Your task to perform on an android device: Search for hotels in Paris Image 0: 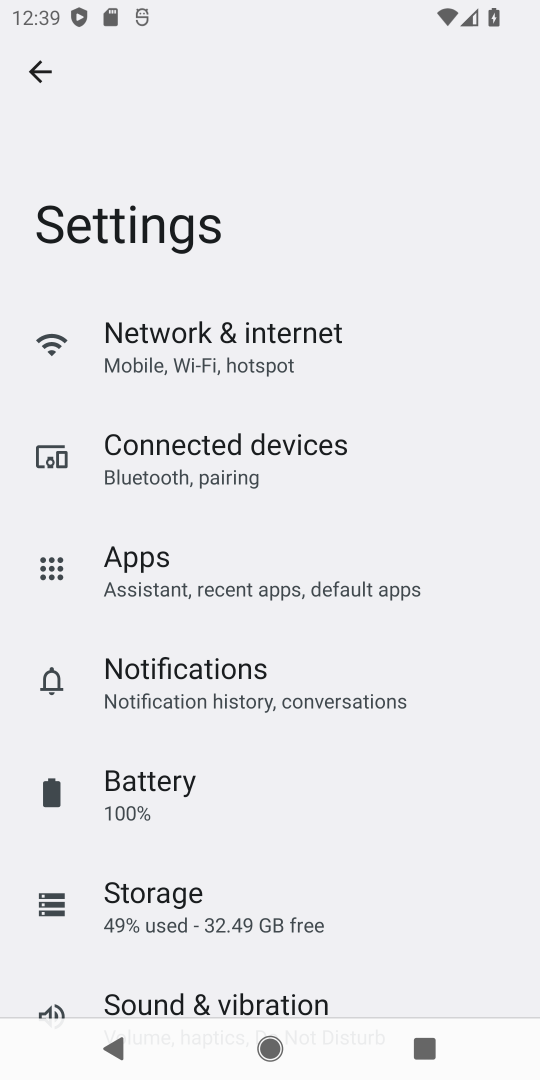
Step 0: press home button
Your task to perform on an android device: Search for hotels in Paris Image 1: 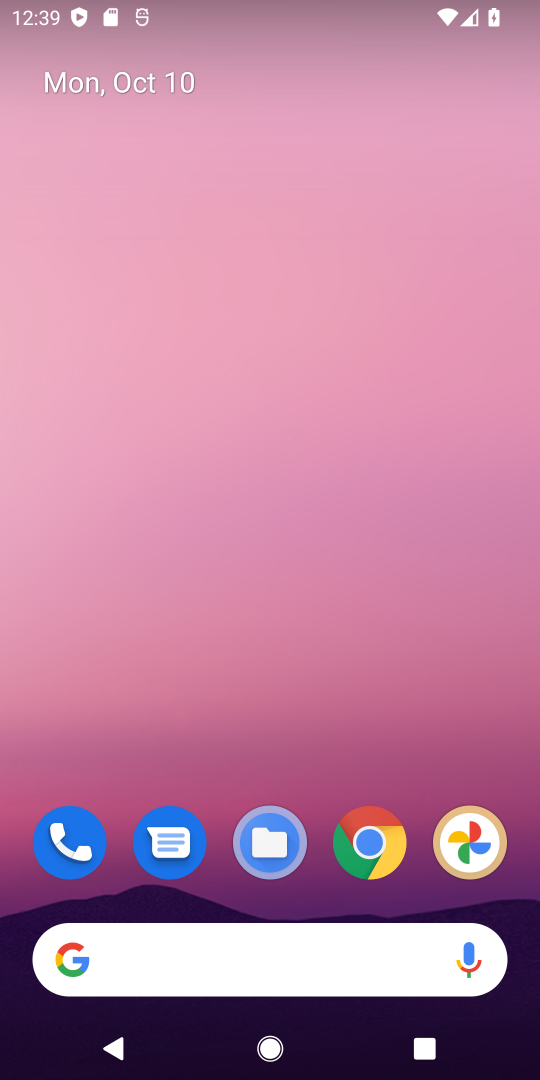
Step 1: click (355, 844)
Your task to perform on an android device: Search for hotels in Paris Image 2: 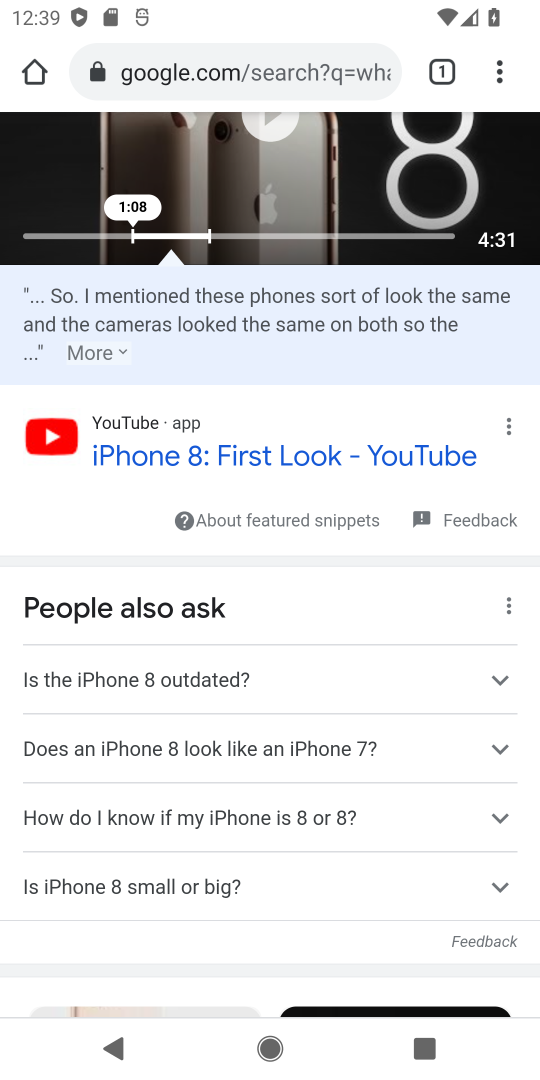
Step 2: click (273, 85)
Your task to perform on an android device: Search for hotels in Paris Image 3: 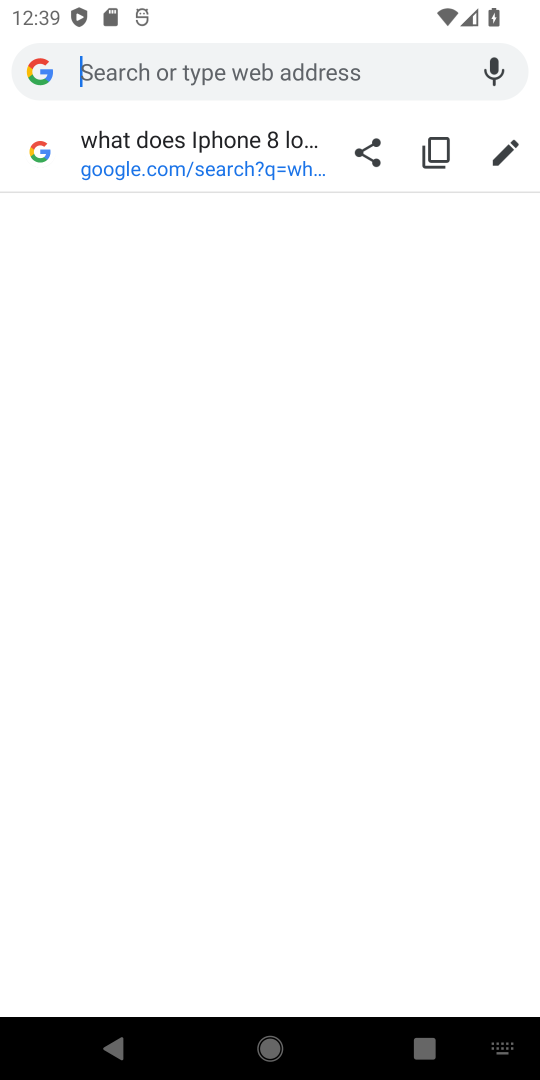
Step 3: type "hotels in Paris"
Your task to perform on an android device: Search for hotels in Paris Image 4: 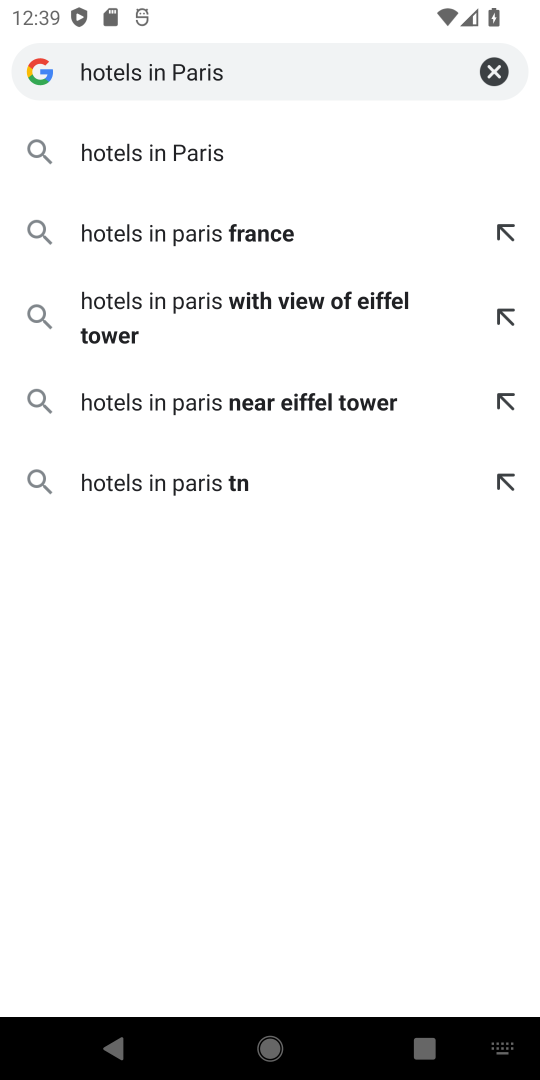
Step 4: press enter
Your task to perform on an android device: Search for hotels in Paris Image 5: 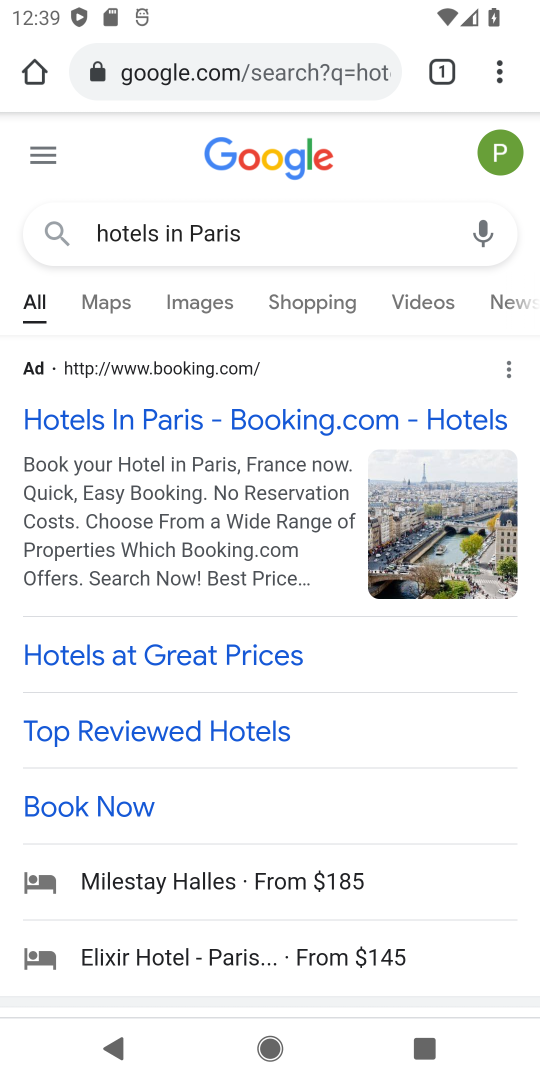
Step 5: click (252, 416)
Your task to perform on an android device: Search for hotels in Paris Image 6: 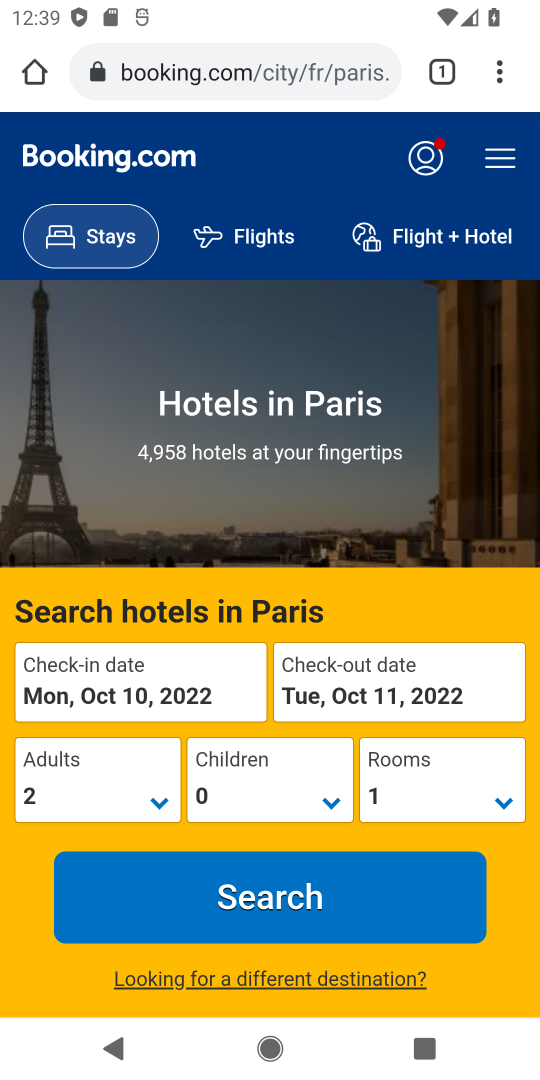
Step 6: drag from (328, 745) to (343, 158)
Your task to perform on an android device: Search for hotels in Paris Image 7: 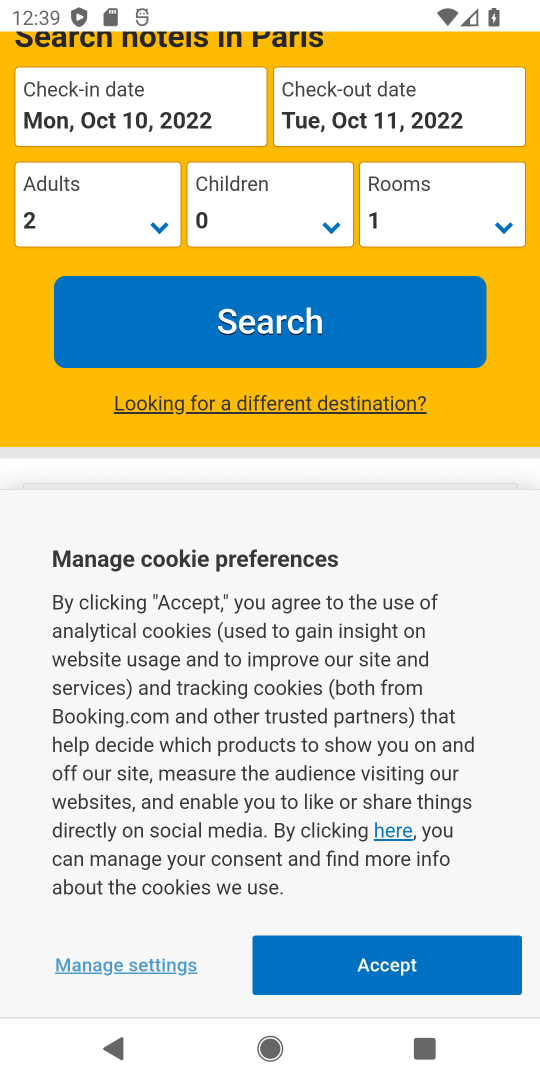
Step 7: click (423, 973)
Your task to perform on an android device: Search for hotels in Paris Image 8: 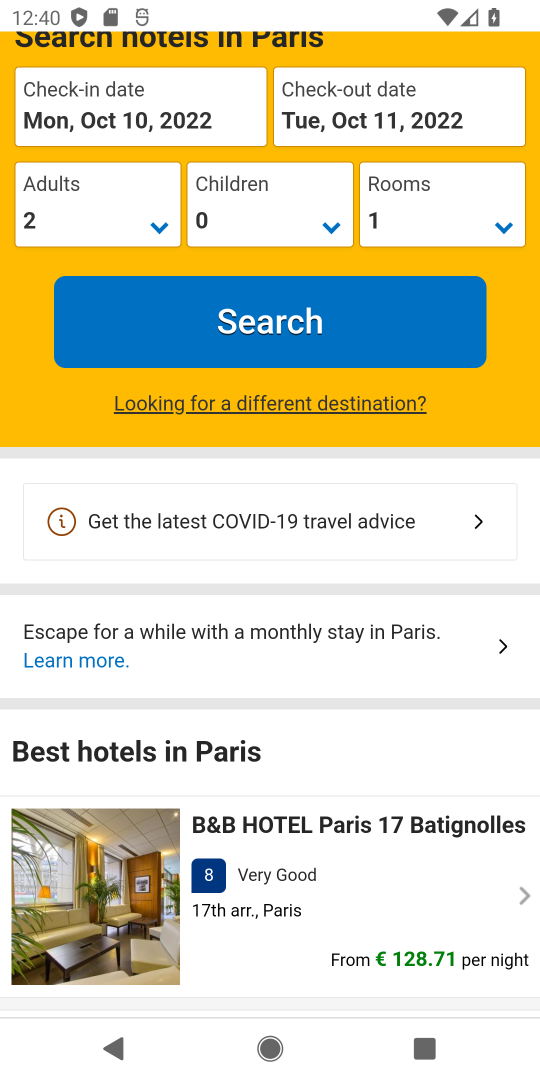
Step 8: task complete